Your task to perform on an android device: turn off smart reply in the gmail app Image 0: 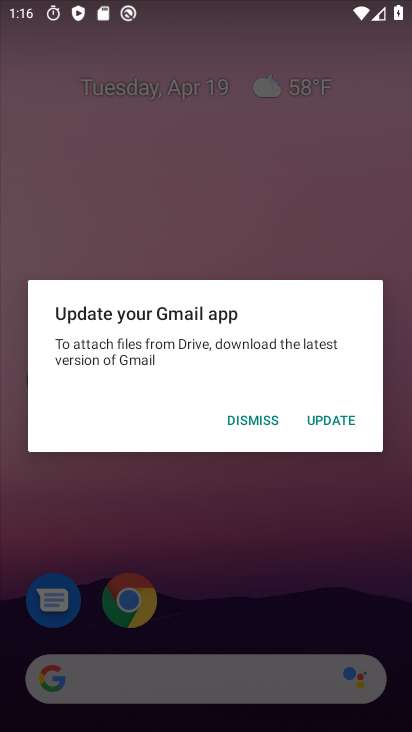
Step 0: press home button
Your task to perform on an android device: turn off smart reply in the gmail app Image 1: 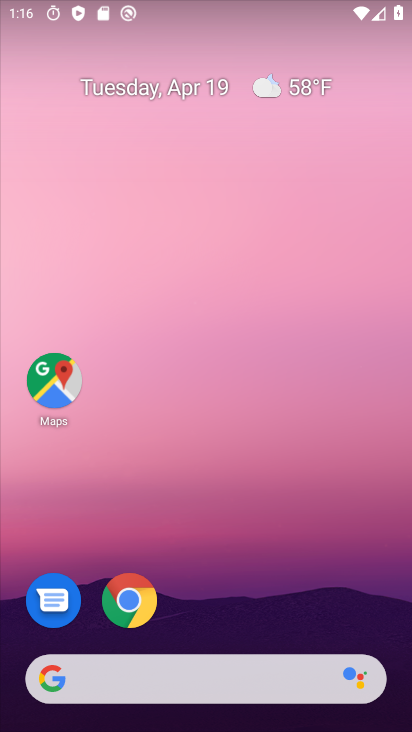
Step 1: drag from (282, 708) to (363, 329)
Your task to perform on an android device: turn off smart reply in the gmail app Image 2: 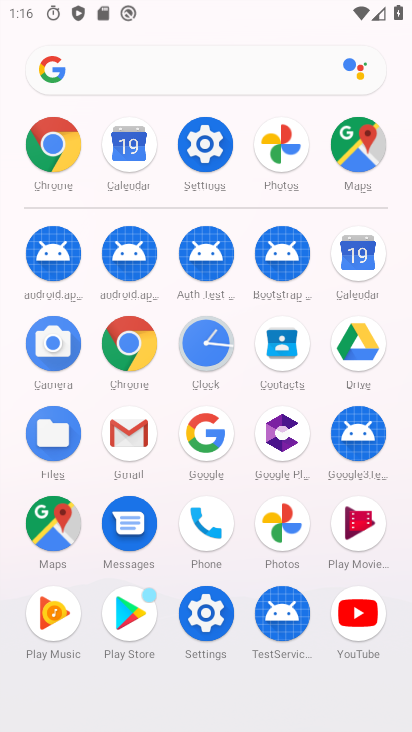
Step 2: click (140, 422)
Your task to perform on an android device: turn off smart reply in the gmail app Image 3: 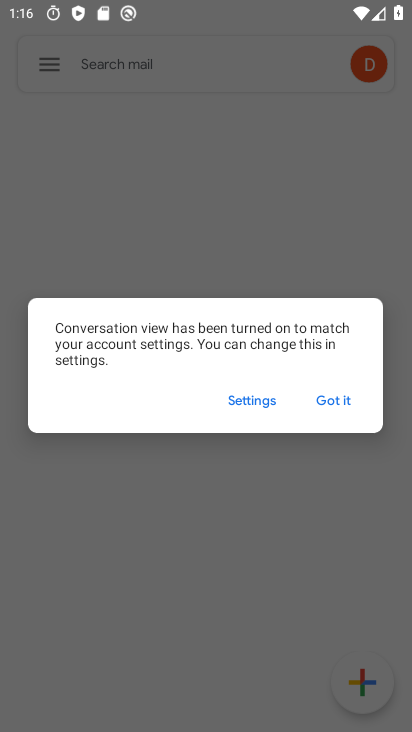
Step 3: click (320, 398)
Your task to perform on an android device: turn off smart reply in the gmail app Image 4: 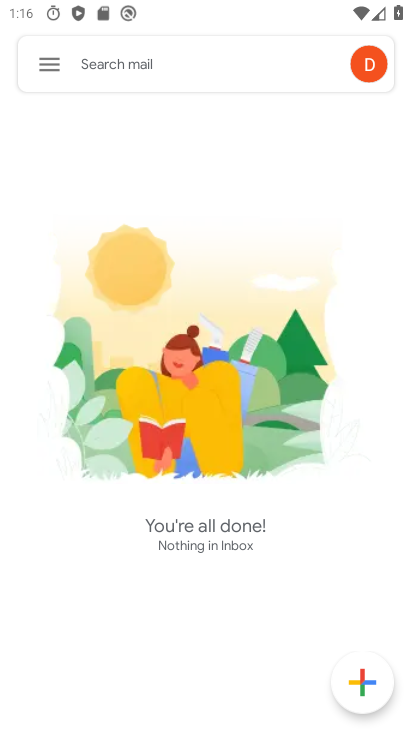
Step 4: click (46, 46)
Your task to perform on an android device: turn off smart reply in the gmail app Image 5: 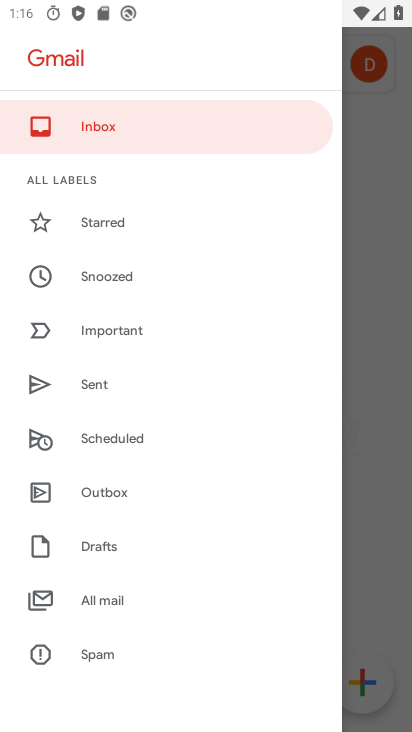
Step 5: drag from (77, 575) to (244, 295)
Your task to perform on an android device: turn off smart reply in the gmail app Image 6: 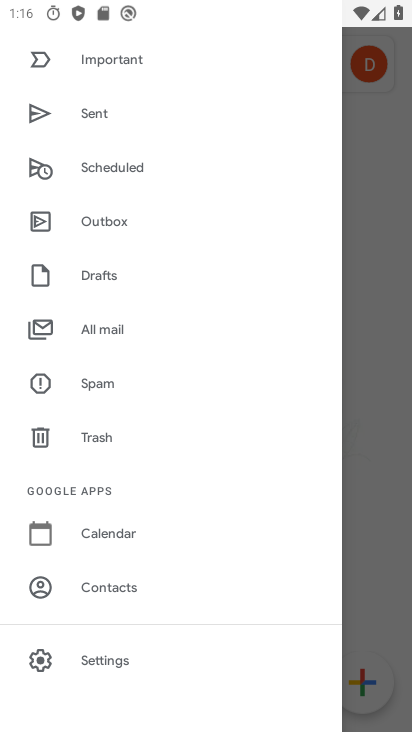
Step 6: click (96, 657)
Your task to perform on an android device: turn off smart reply in the gmail app Image 7: 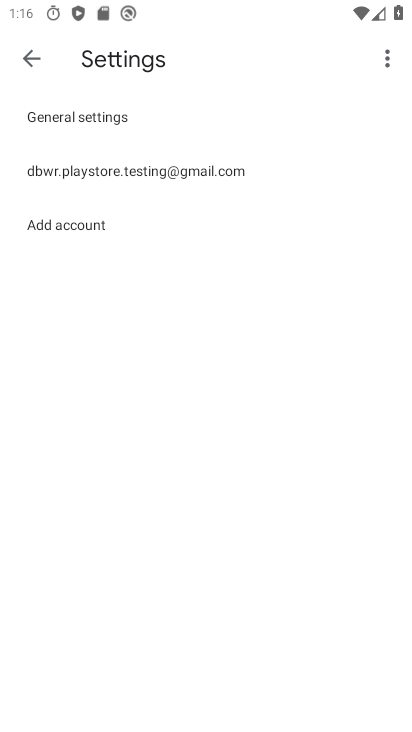
Step 7: click (140, 187)
Your task to perform on an android device: turn off smart reply in the gmail app Image 8: 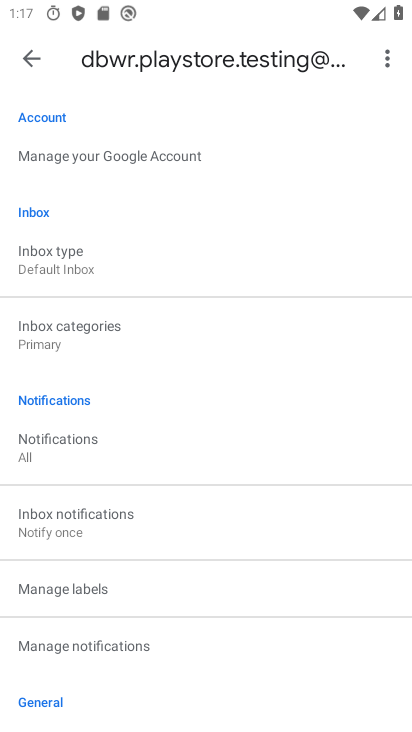
Step 8: drag from (116, 605) to (185, 230)
Your task to perform on an android device: turn off smart reply in the gmail app Image 9: 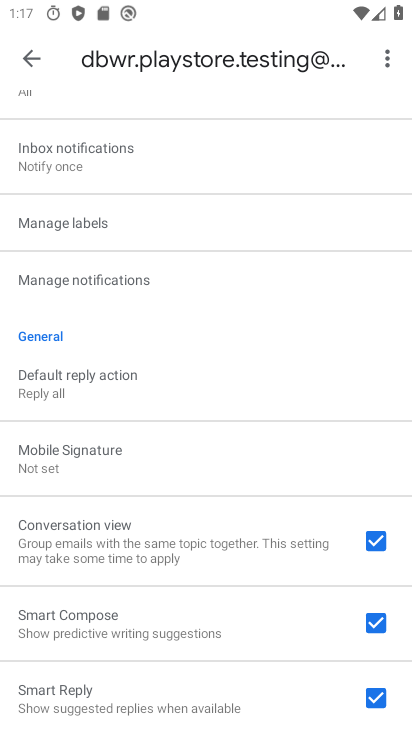
Step 9: drag from (136, 573) to (216, 352)
Your task to perform on an android device: turn off smart reply in the gmail app Image 10: 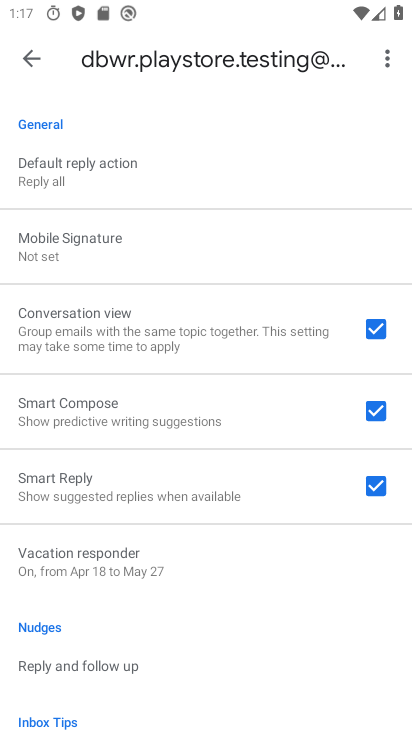
Step 10: click (377, 485)
Your task to perform on an android device: turn off smart reply in the gmail app Image 11: 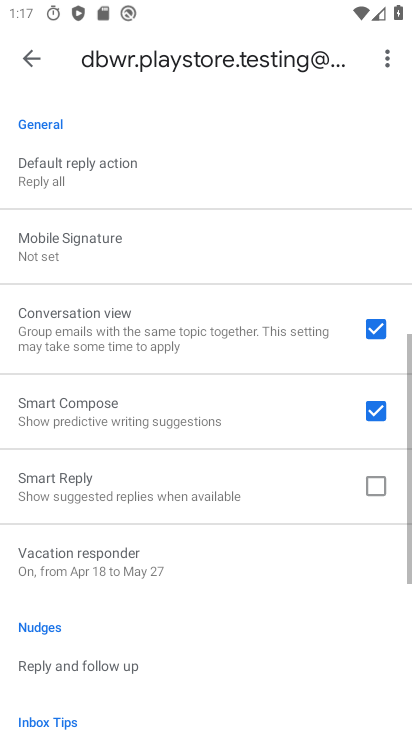
Step 11: task complete